Your task to perform on an android device: Do I have any events today? Image 0: 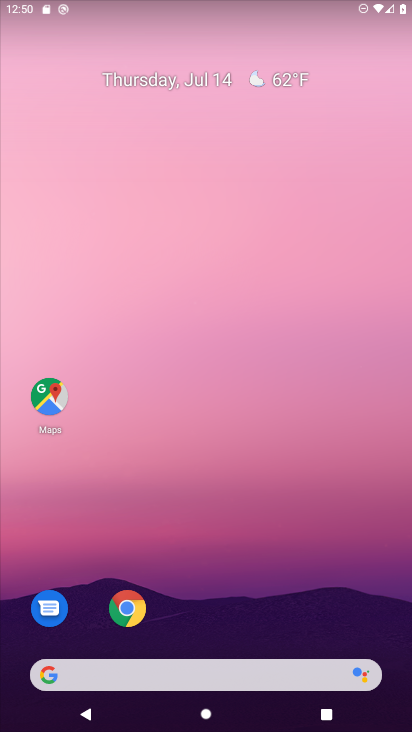
Step 0: drag from (242, 718) to (244, 160)
Your task to perform on an android device: Do I have any events today? Image 1: 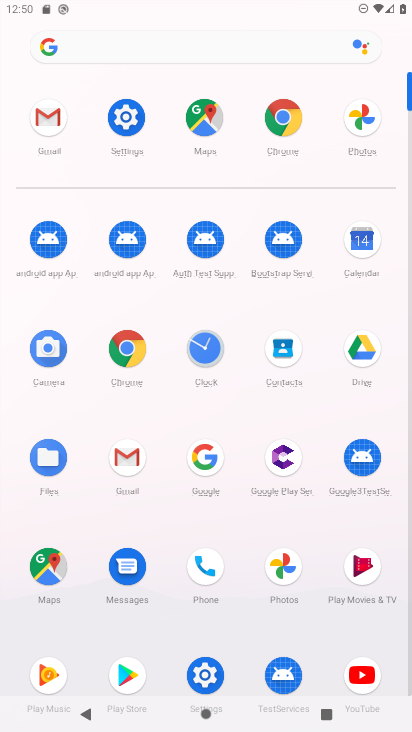
Step 1: click (368, 241)
Your task to perform on an android device: Do I have any events today? Image 2: 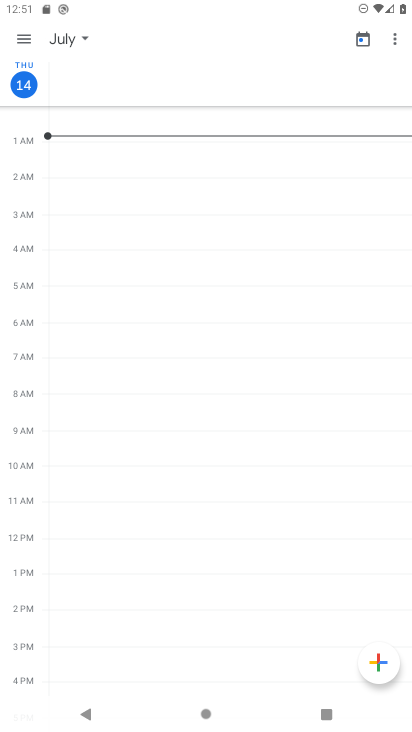
Step 2: click (27, 37)
Your task to perform on an android device: Do I have any events today? Image 3: 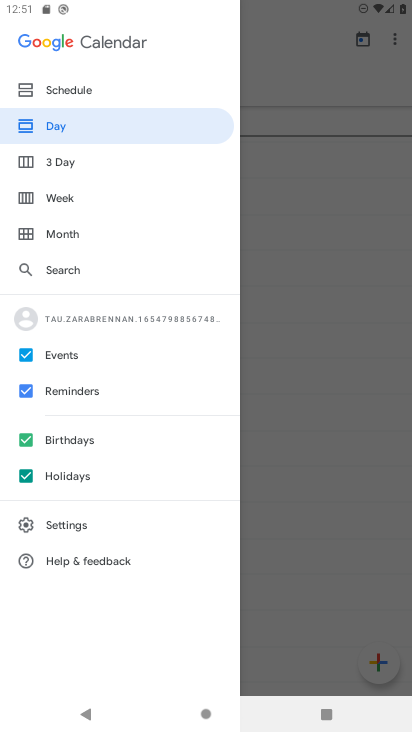
Step 3: click (23, 472)
Your task to perform on an android device: Do I have any events today? Image 4: 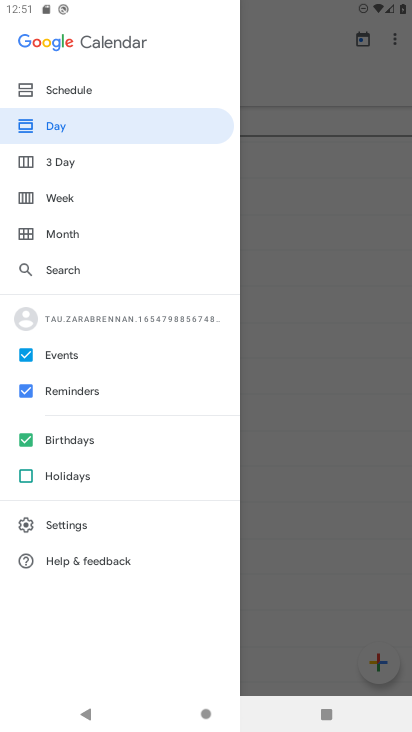
Step 4: click (25, 433)
Your task to perform on an android device: Do I have any events today? Image 5: 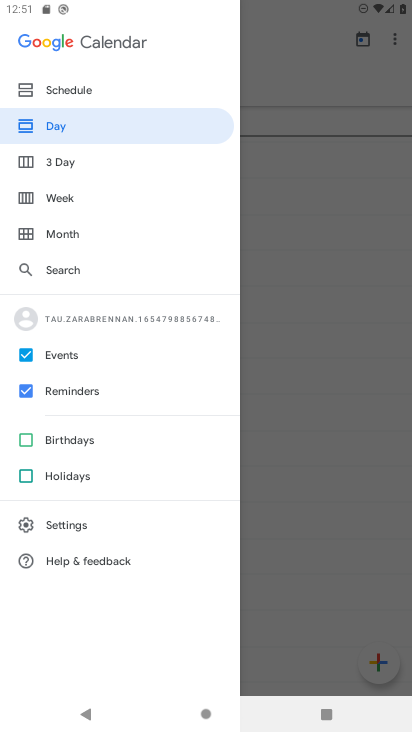
Step 5: click (26, 387)
Your task to perform on an android device: Do I have any events today? Image 6: 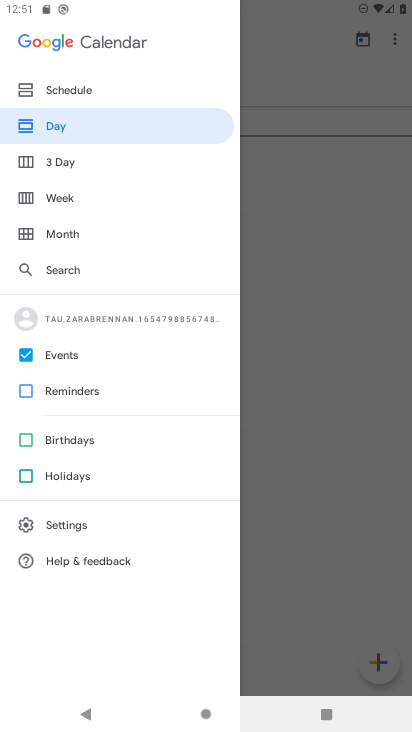
Step 6: click (70, 123)
Your task to perform on an android device: Do I have any events today? Image 7: 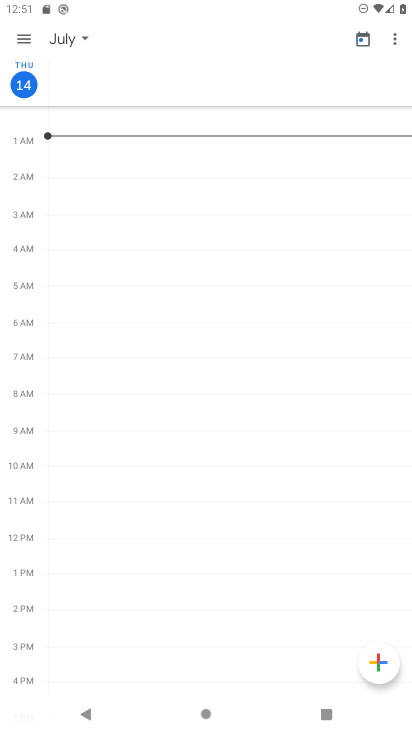
Step 7: task complete